Your task to perform on an android device: Open sound settings Image 0: 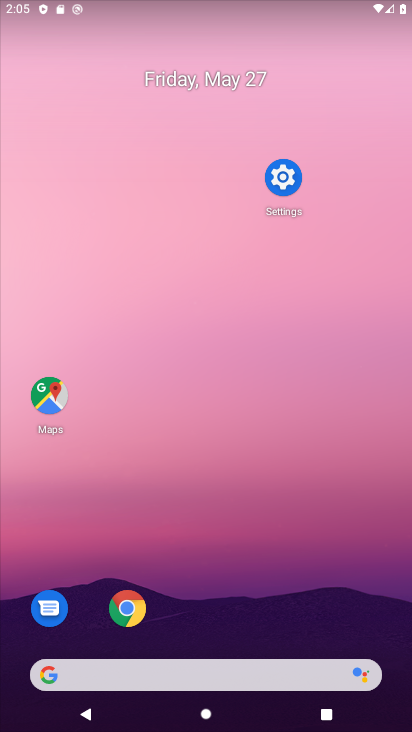
Step 0: drag from (256, 594) to (256, 137)
Your task to perform on an android device: Open sound settings Image 1: 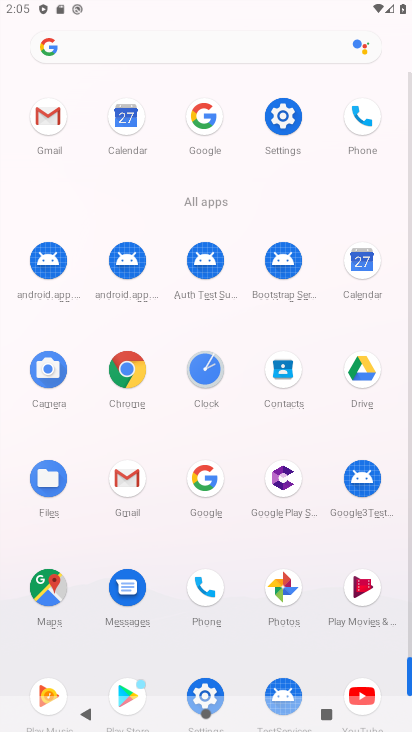
Step 1: click (288, 111)
Your task to perform on an android device: Open sound settings Image 2: 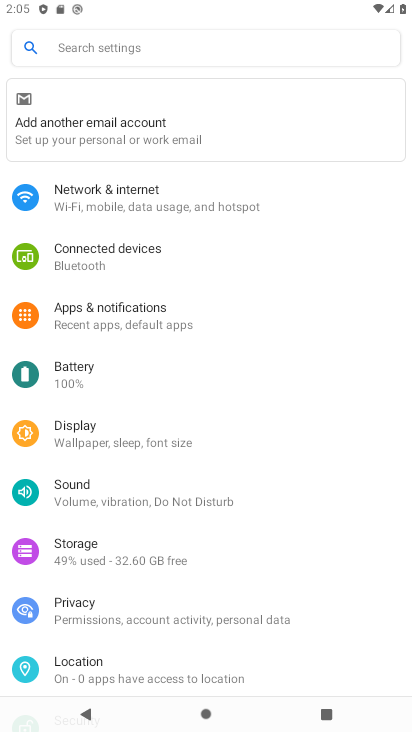
Step 2: click (117, 491)
Your task to perform on an android device: Open sound settings Image 3: 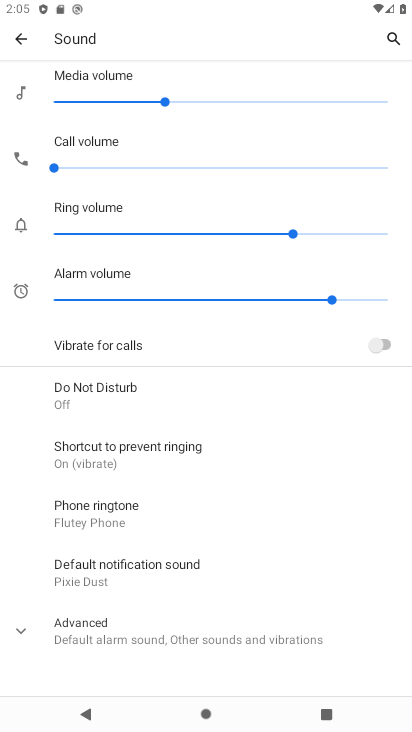
Step 3: task complete